Your task to perform on an android device: clear all cookies in the chrome app Image 0: 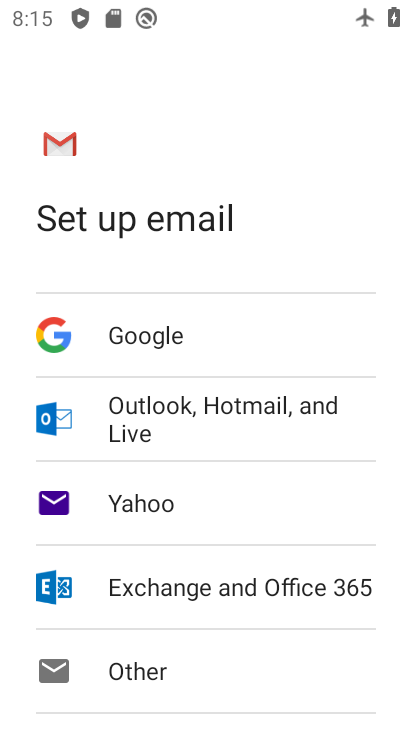
Step 0: press home button
Your task to perform on an android device: clear all cookies in the chrome app Image 1: 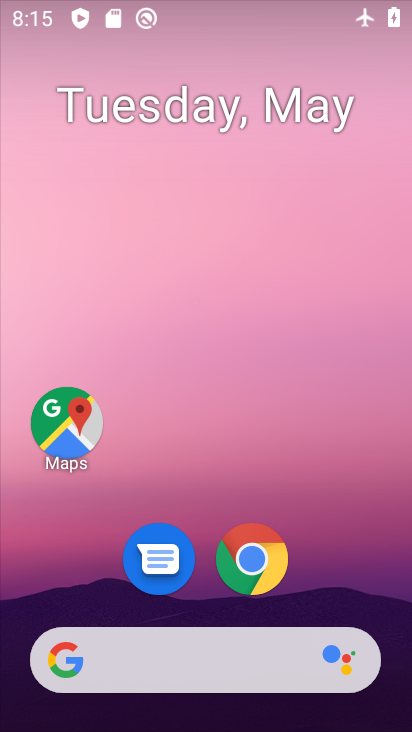
Step 1: click (248, 557)
Your task to perform on an android device: clear all cookies in the chrome app Image 2: 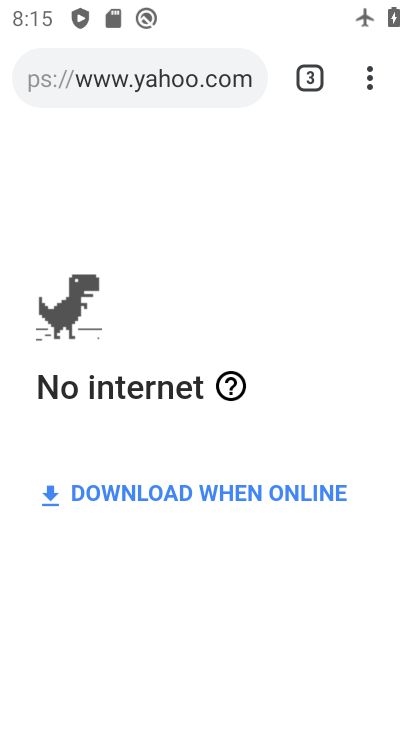
Step 2: drag from (365, 84) to (136, 454)
Your task to perform on an android device: clear all cookies in the chrome app Image 3: 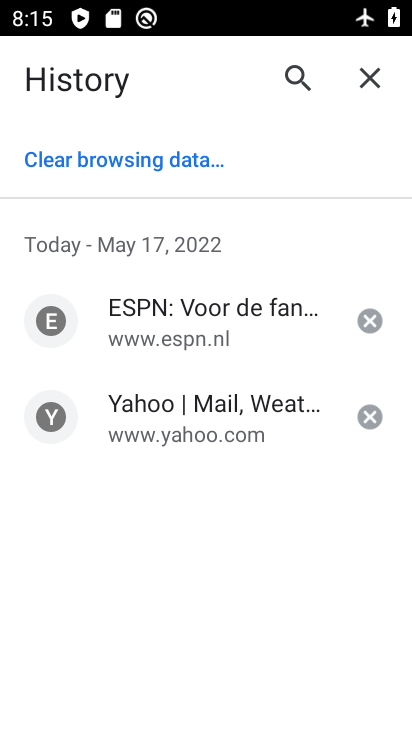
Step 3: click (142, 154)
Your task to perform on an android device: clear all cookies in the chrome app Image 4: 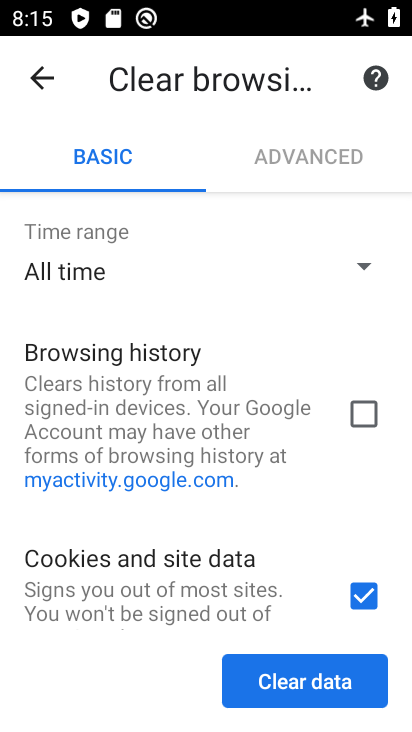
Step 4: click (365, 401)
Your task to perform on an android device: clear all cookies in the chrome app Image 5: 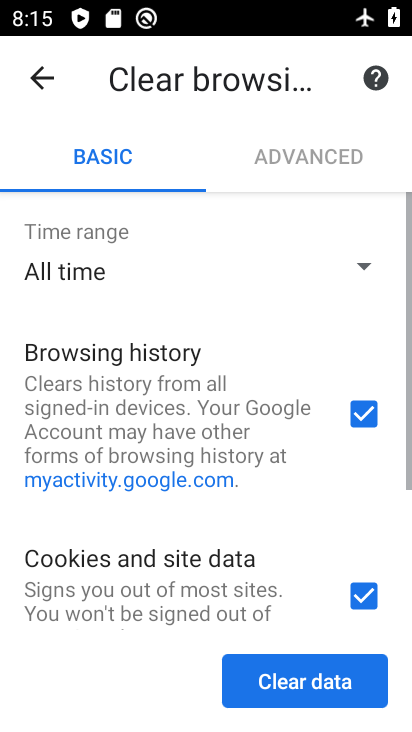
Step 5: drag from (199, 533) to (271, 306)
Your task to perform on an android device: clear all cookies in the chrome app Image 6: 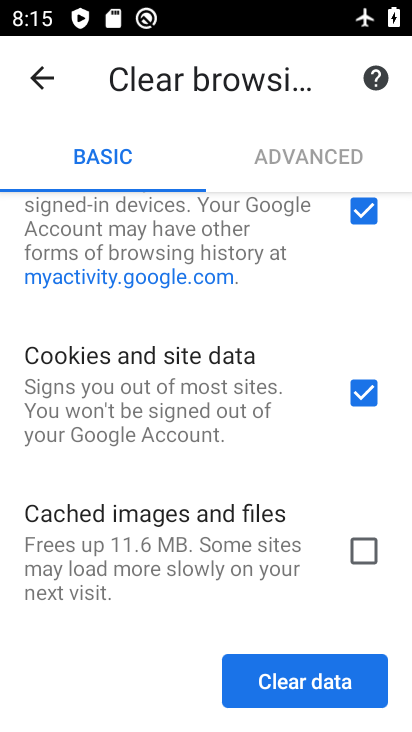
Step 6: click (354, 538)
Your task to perform on an android device: clear all cookies in the chrome app Image 7: 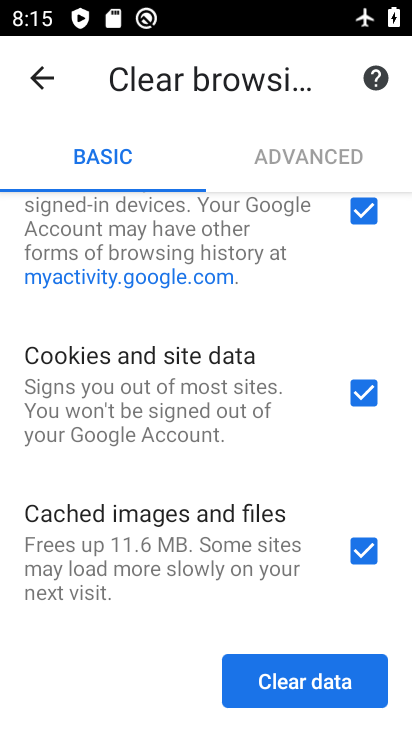
Step 7: click (304, 688)
Your task to perform on an android device: clear all cookies in the chrome app Image 8: 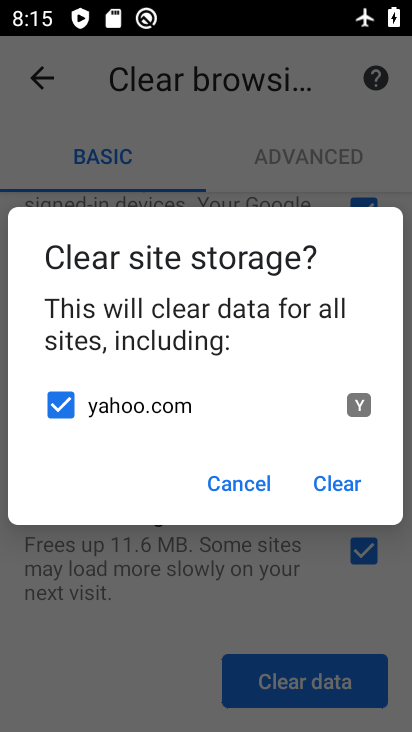
Step 8: click (331, 479)
Your task to perform on an android device: clear all cookies in the chrome app Image 9: 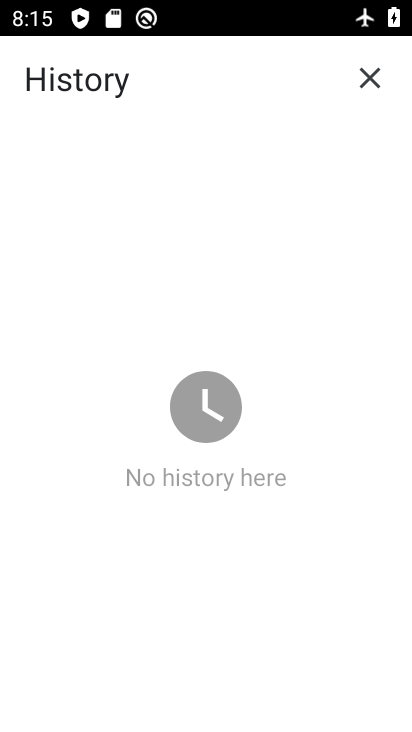
Step 9: task complete